Your task to perform on an android device: delete the emails in spam in the gmail app Image 0: 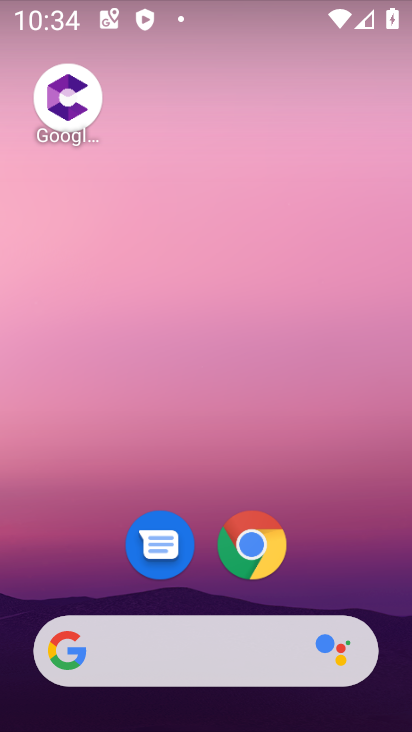
Step 0: drag from (90, 589) to (147, 405)
Your task to perform on an android device: delete the emails in spam in the gmail app Image 1: 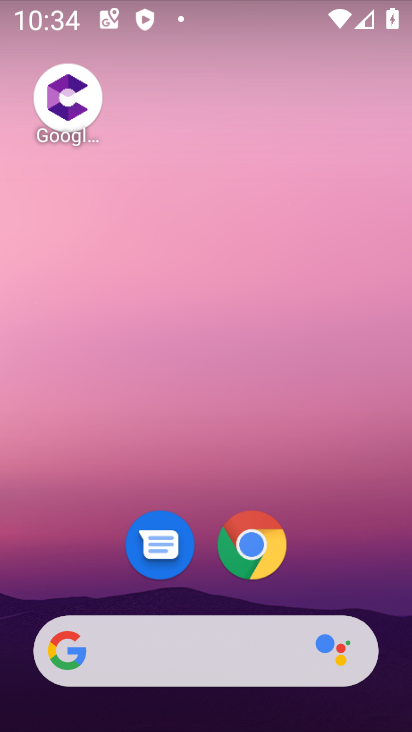
Step 1: drag from (93, 571) to (214, 151)
Your task to perform on an android device: delete the emails in spam in the gmail app Image 2: 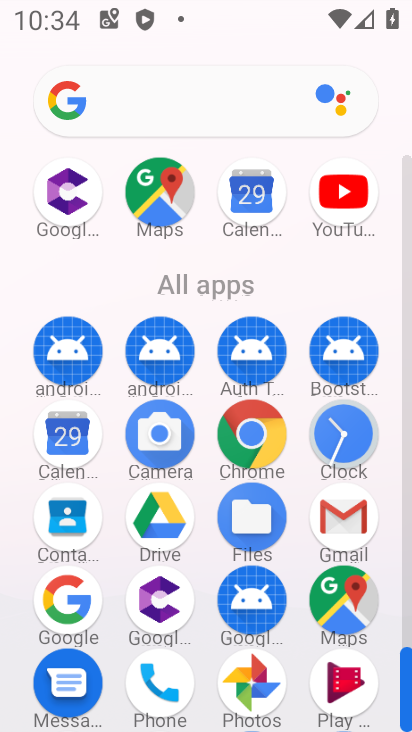
Step 2: click (329, 514)
Your task to perform on an android device: delete the emails in spam in the gmail app Image 3: 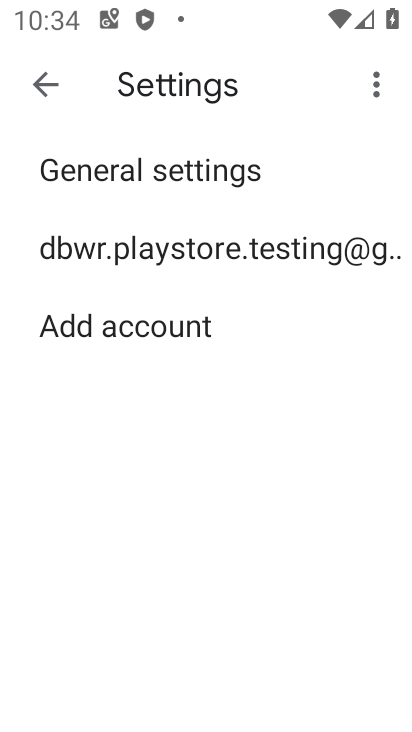
Step 3: click (57, 93)
Your task to perform on an android device: delete the emails in spam in the gmail app Image 4: 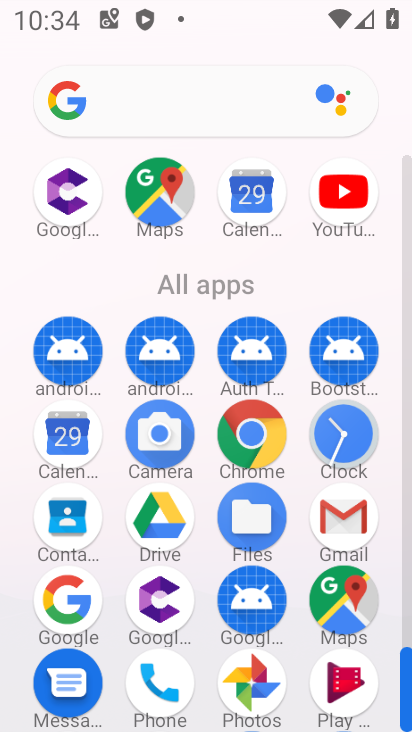
Step 4: click (340, 516)
Your task to perform on an android device: delete the emails in spam in the gmail app Image 5: 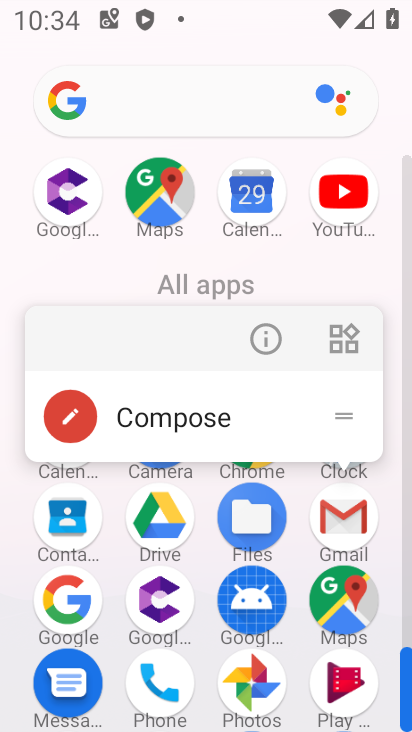
Step 5: click (355, 524)
Your task to perform on an android device: delete the emails in spam in the gmail app Image 6: 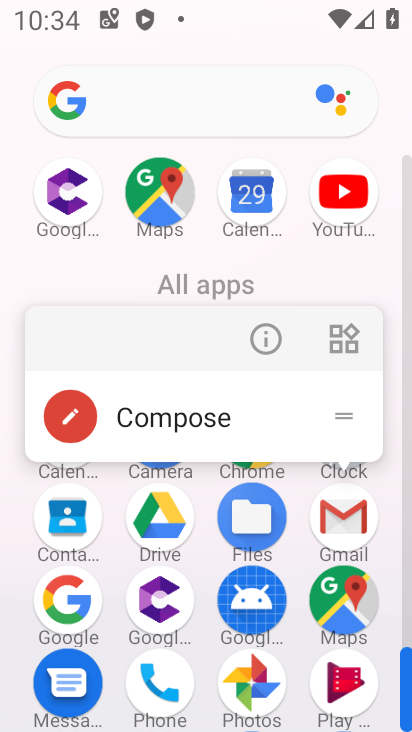
Step 6: click (348, 507)
Your task to perform on an android device: delete the emails in spam in the gmail app Image 7: 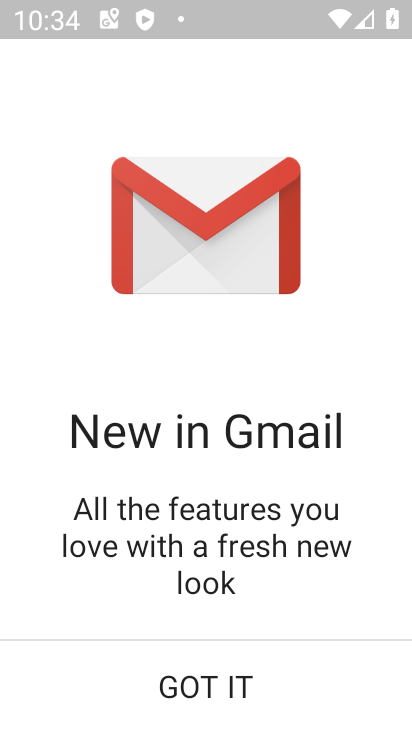
Step 7: click (254, 685)
Your task to perform on an android device: delete the emails in spam in the gmail app Image 8: 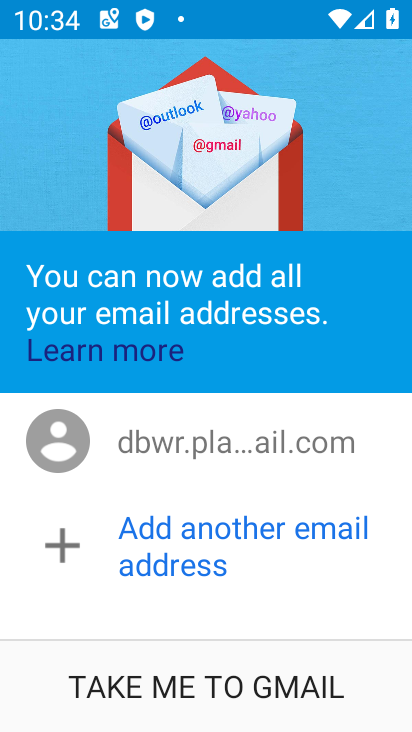
Step 8: click (213, 702)
Your task to perform on an android device: delete the emails in spam in the gmail app Image 9: 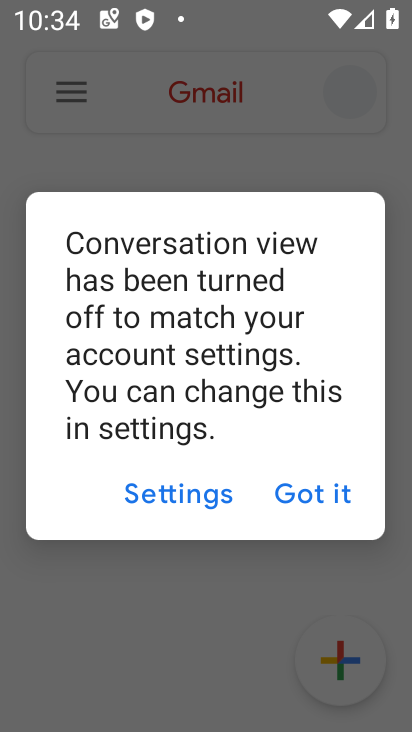
Step 9: click (341, 494)
Your task to perform on an android device: delete the emails in spam in the gmail app Image 10: 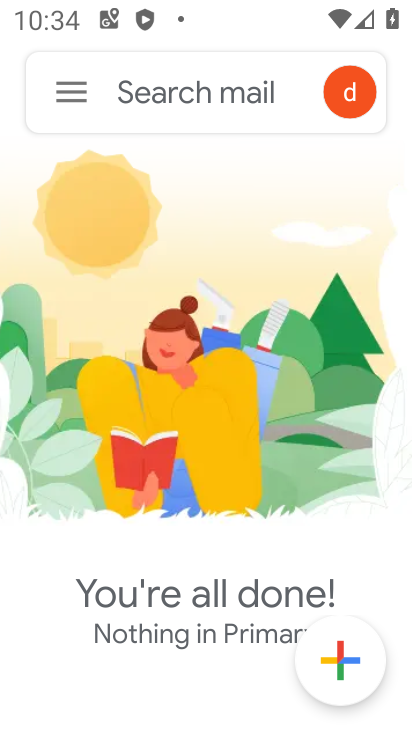
Step 10: click (65, 100)
Your task to perform on an android device: delete the emails in spam in the gmail app Image 11: 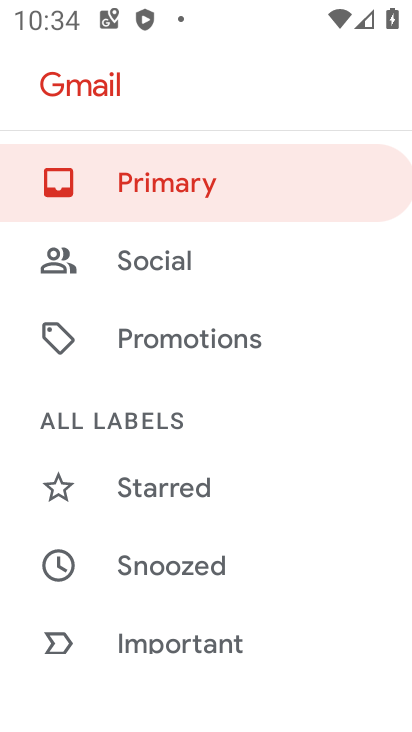
Step 11: drag from (152, 600) to (332, 185)
Your task to perform on an android device: delete the emails in spam in the gmail app Image 12: 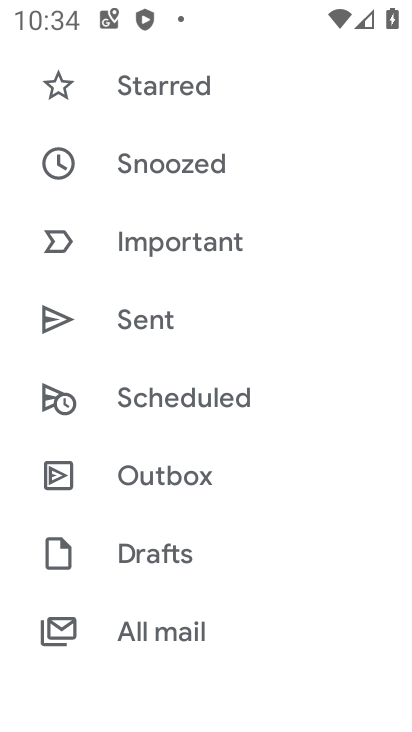
Step 12: drag from (228, 598) to (293, 326)
Your task to perform on an android device: delete the emails in spam in the gmail app Image 13: 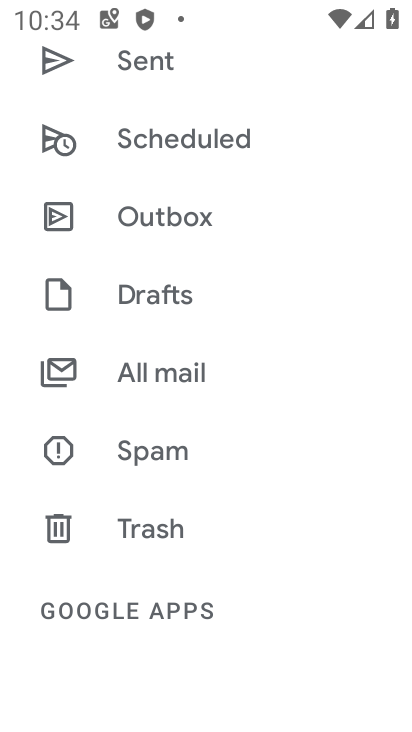
Step 13: click (206, 374)
Your task to perform on an android device: delete the emails in spam in the gmail app Image 14: 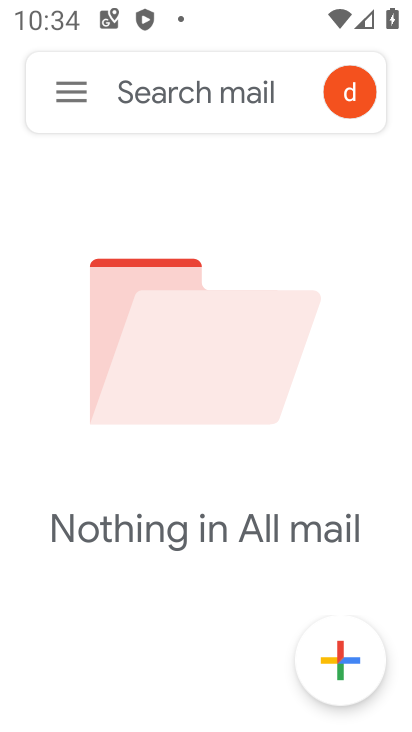
Step 14: task complete